Your task to perform on an android device: Open Wikipedia Image 0: 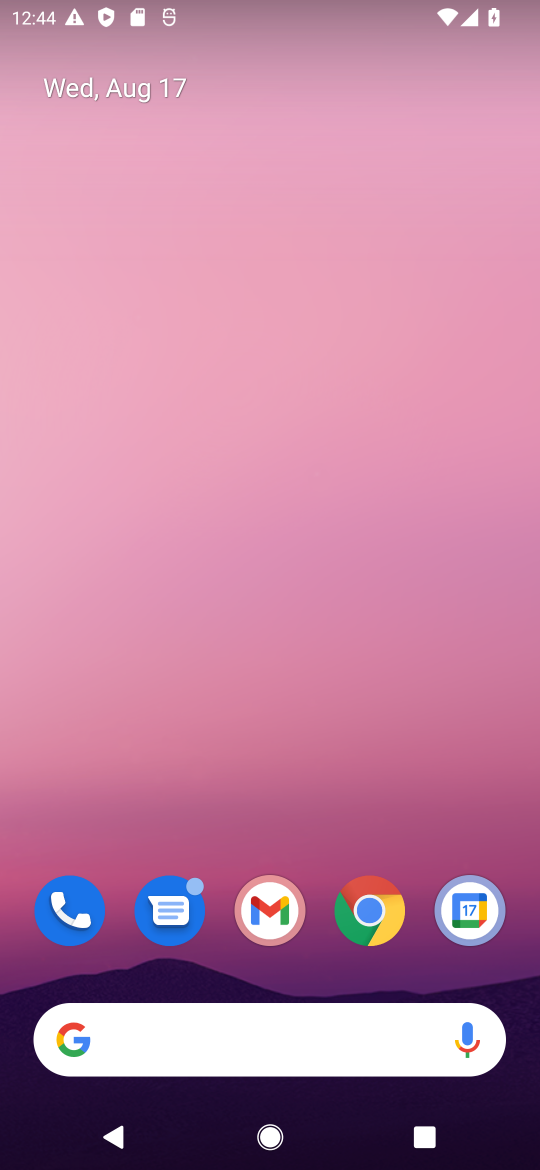
Step 0: click (366, 902)
Your task to perform on an android device: Open Wikipedia Image 1: 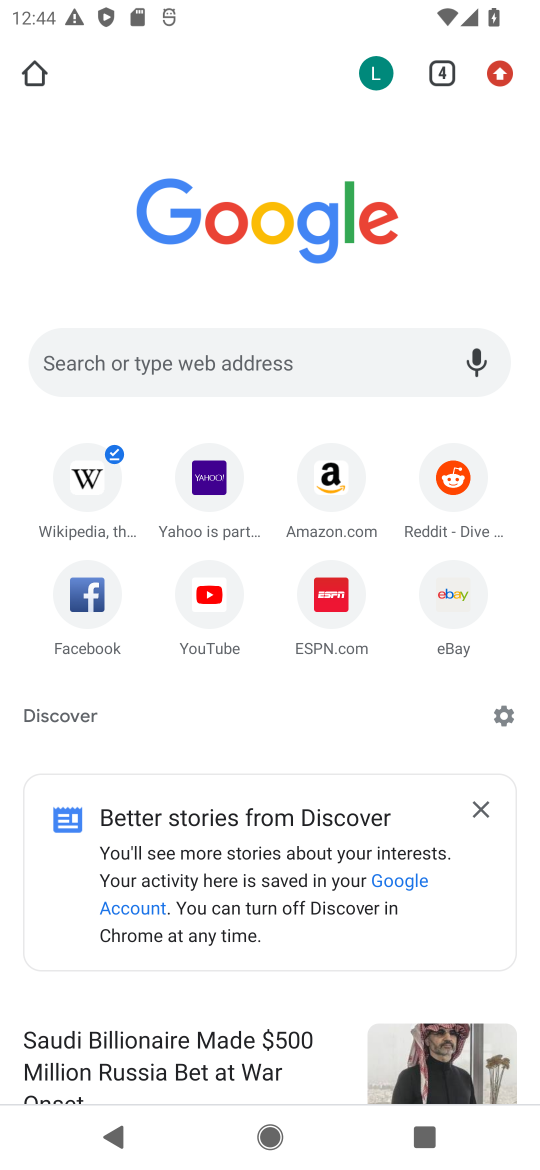
Step 1: click (83, 496)
Your task to perform on an android device: Open Wikipedia Image 2: 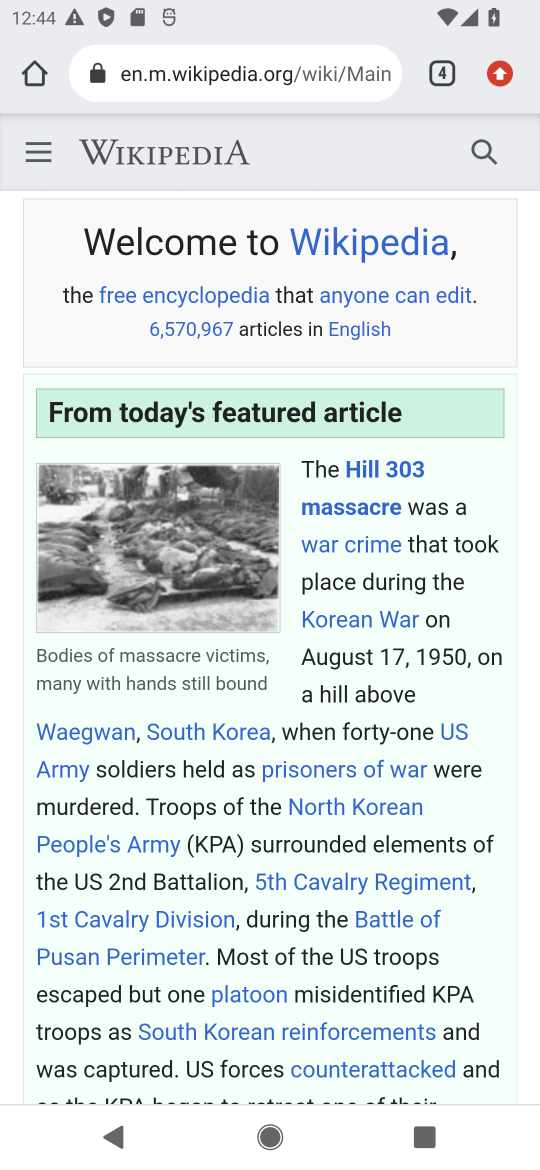
Step 2: task complete